Your task to perform on an android device: turn on translation in the chrome app Image 0: 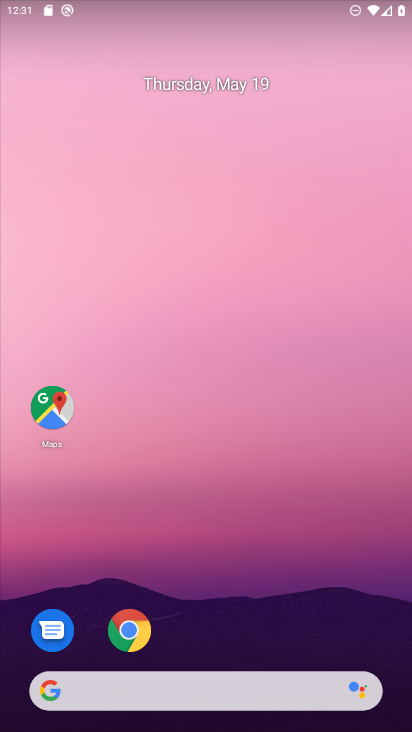
Step 0: click (130, 627)
Your task to perform on an android device: turn on translation in the chrome app Image 1: 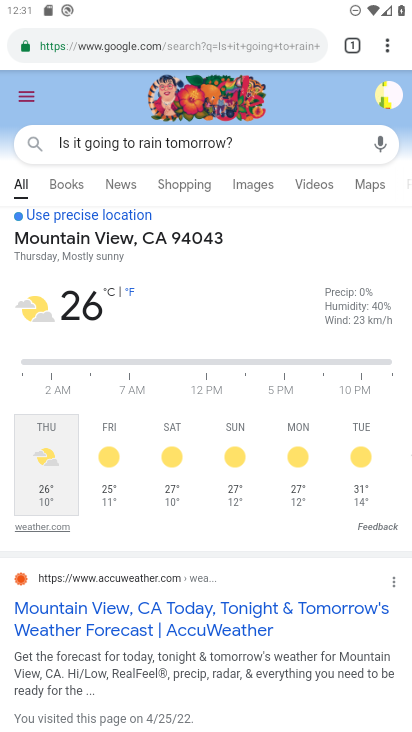
Step 1: click (390, 55)
Your task to perform on an android device: turn on translation in the chrome app Image 2: 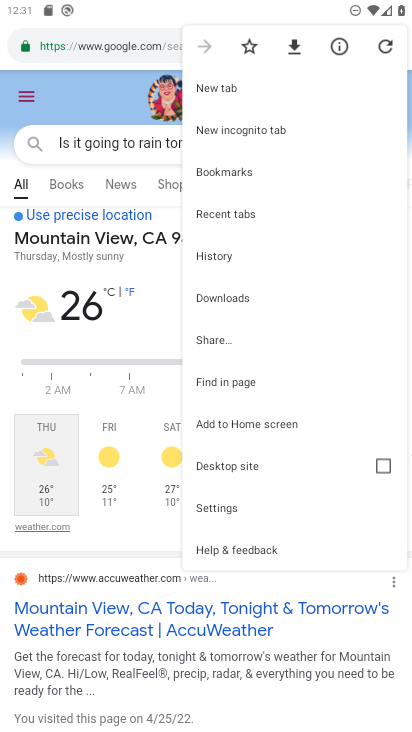
Step 2: click (255, 504)
Your task to perform on an android device: turn on translation in the chrome app Image 3: 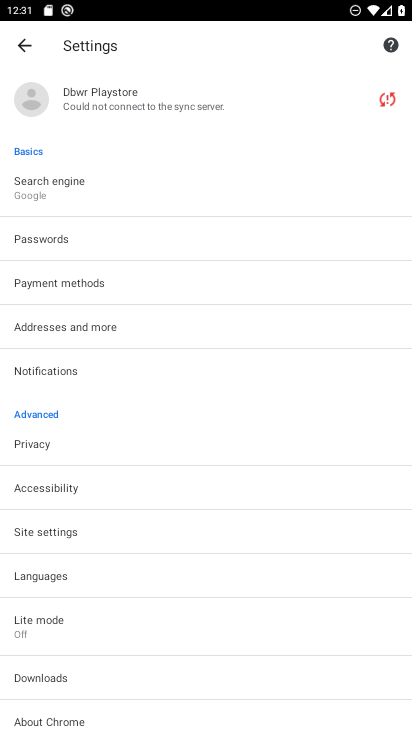
Step 3: click (119, 576)
Your task to perform on an android device: turn on translation in the chrome app Image 4: 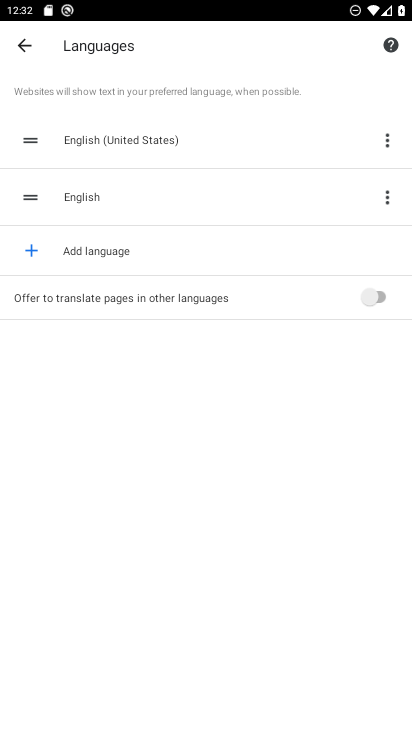
Step 4: click (383, 296)
Your task to perform on an android device: turn on translation in the chrome app Image 5: 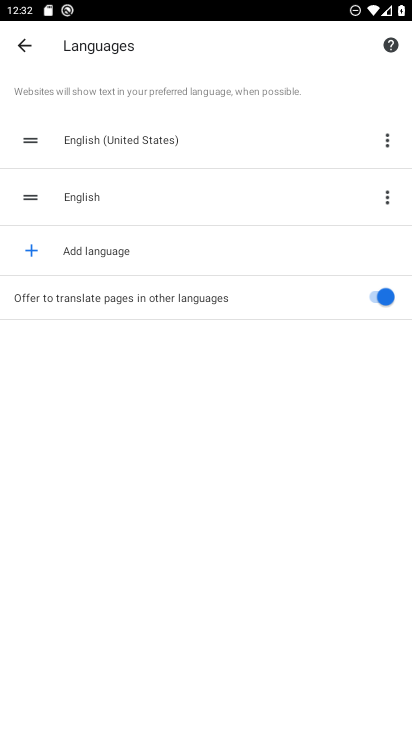
Step 5: task complete